Your task to perform on an android device: Turn off the flashlight Image 0: 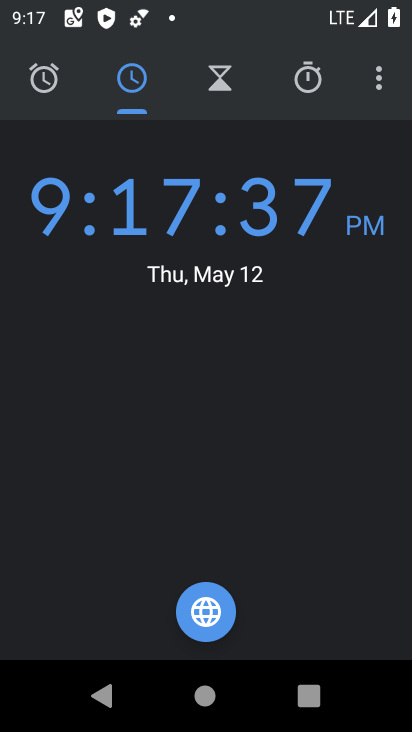
Step 0: press home button
Your task to perform on an android device: Turn off the flashlight Image 1: 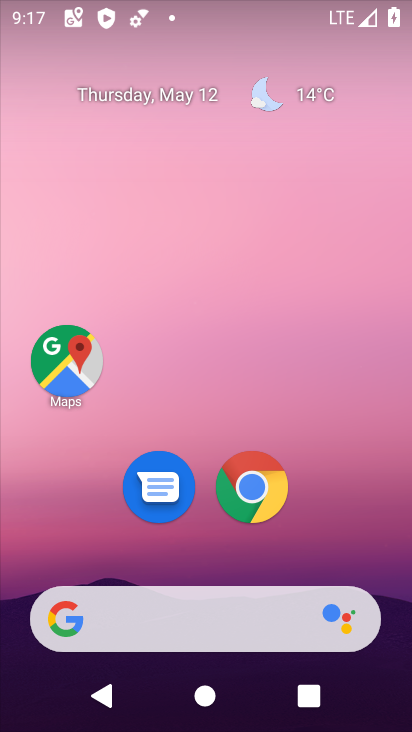
Step 1: drag from (35, 560) to (234, 159)
Your task to perform on an android device: Turn off the flashlight Image 2: 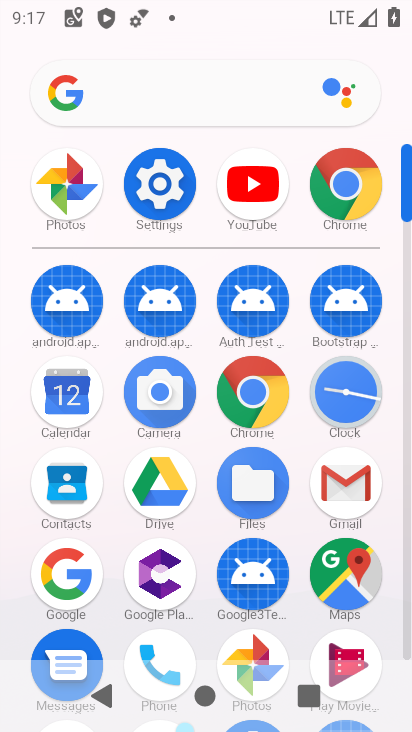
Step 2: click (147, 176)
Your task to perform on an android device: Turn off the flashlight Image 3: 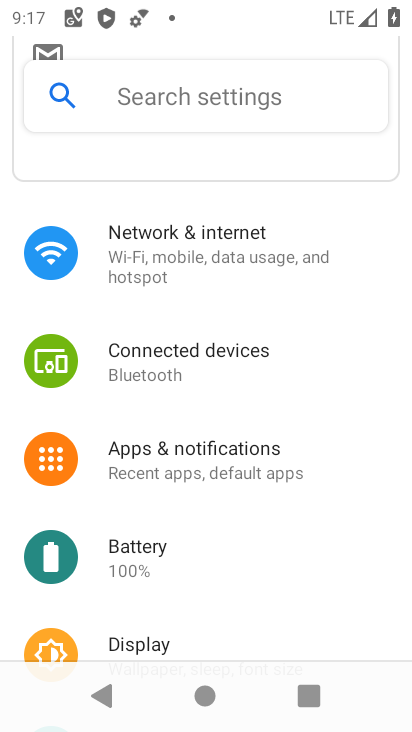
Step 3: drag from (30, 641) to (189, 257)
Your task to perform on an android device: Turn off the flashlight Image 4: 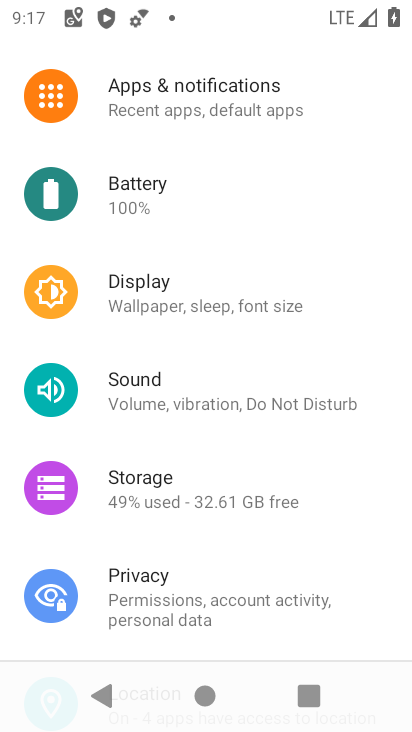
Step 4: click (144, 481)
Your task to perform on an android device: Turn off the flashlight Image 5: 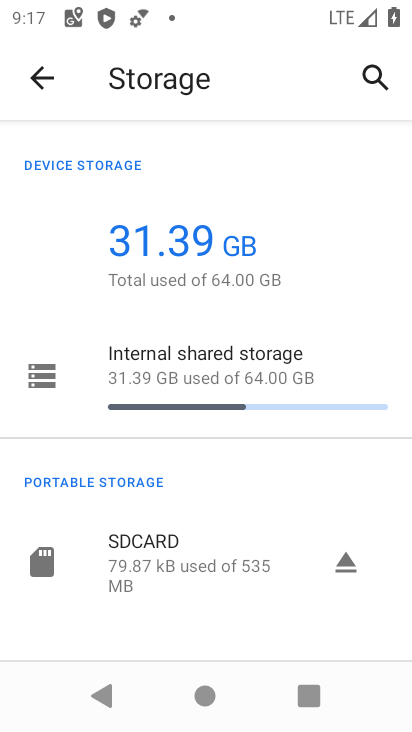
Step 5: task complete